Your task to perform on an android device: Open Chrome and go to settings Image 0: 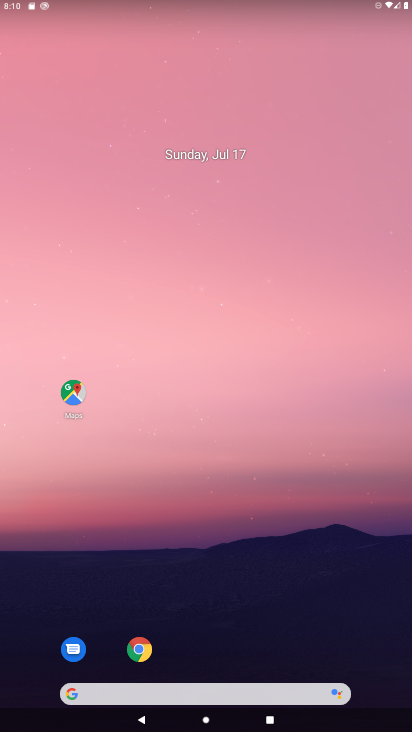
Step 0: drag from (195, 671) to (400, 385)
Your task to perform on an android device: Open Chrome and go to settings Image 1: 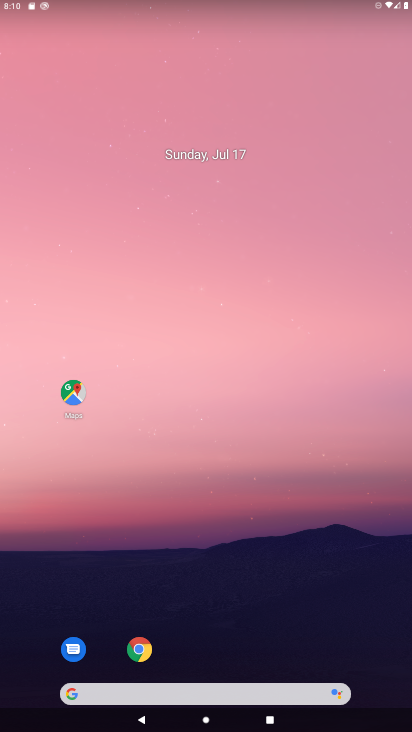
Step 1: drag from (211, 670) to (231, 16)
Your task to perform on an android device: Open Chrome and go to settings Image 2: 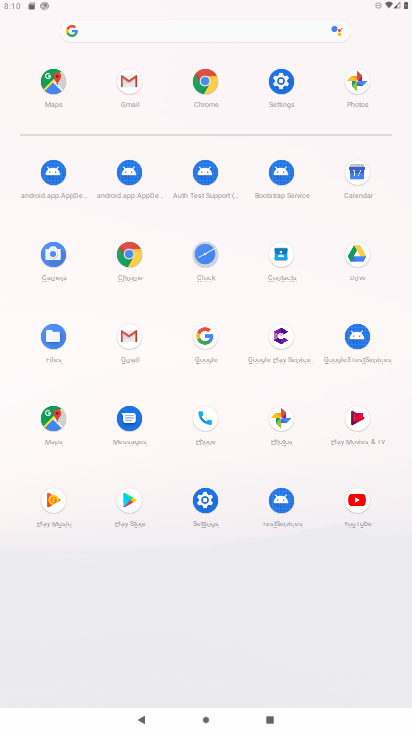
Step 2: click (117, 257)
Your task to perform on an android device: Open Chrome and go to settings Image 3: 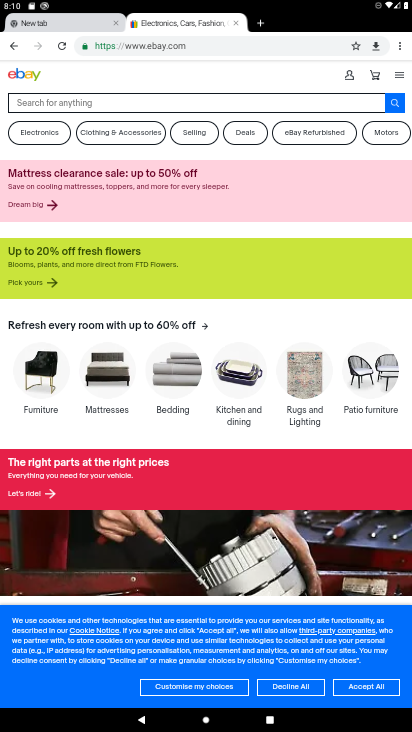
Step 3: task complete